Your task to perform on an android device: Add "lg ultragear" to the cart on newegg.com Image 0: 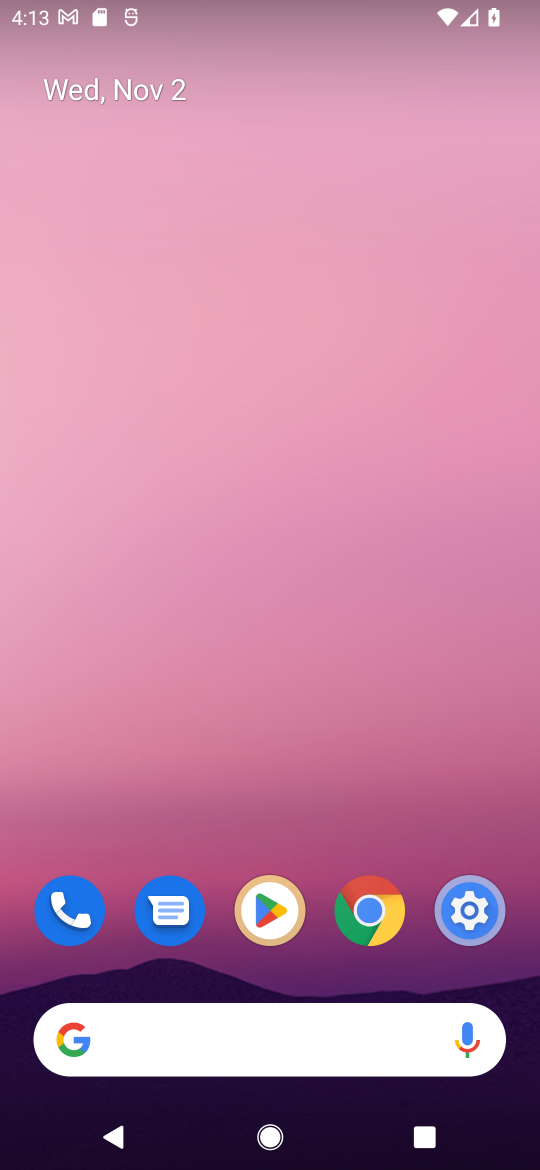
Step 0: click (224, 1031)
Your task to perform on an android device: Add "lg ultragear" to the cart on newegg.com Image 1: 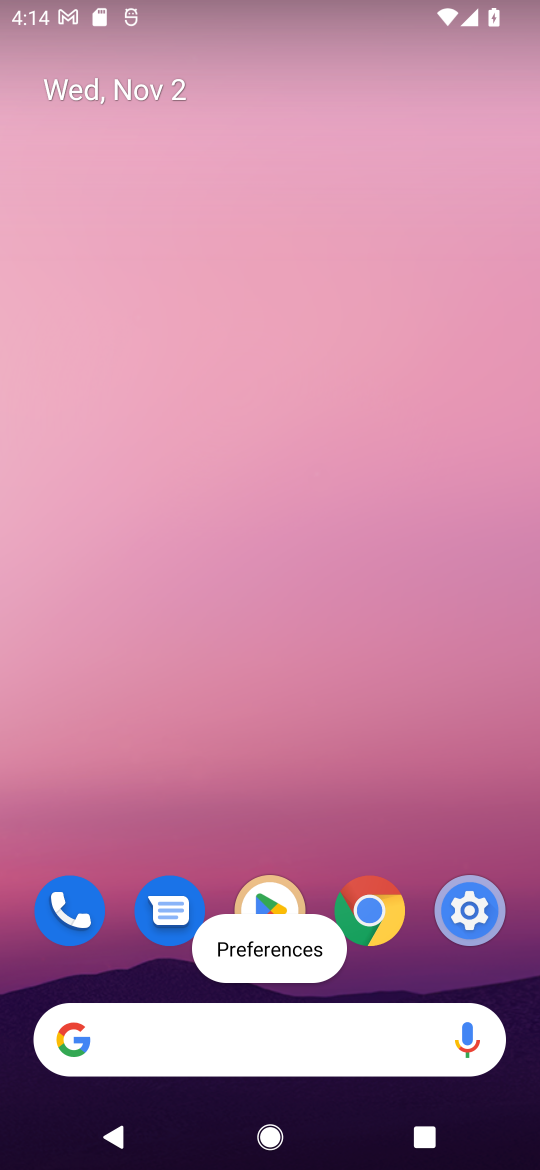
Step 1: task complete